Your task to perform on an android device: Open notification settings Image 0: 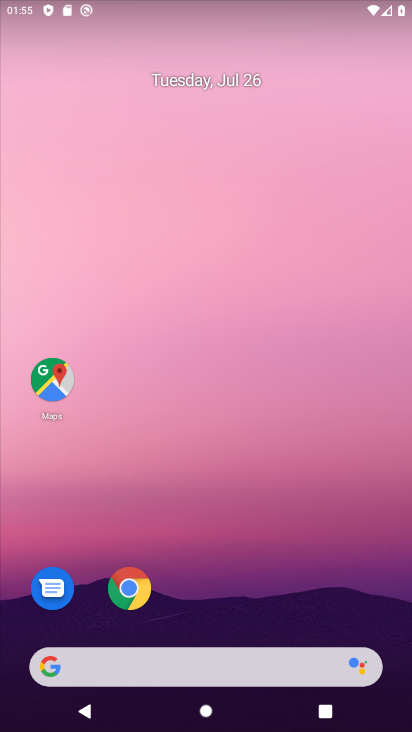
Step 0: drag from (286, 620) to (239, 234)
Your task to perform on an android device: Open notification settings Image 1: 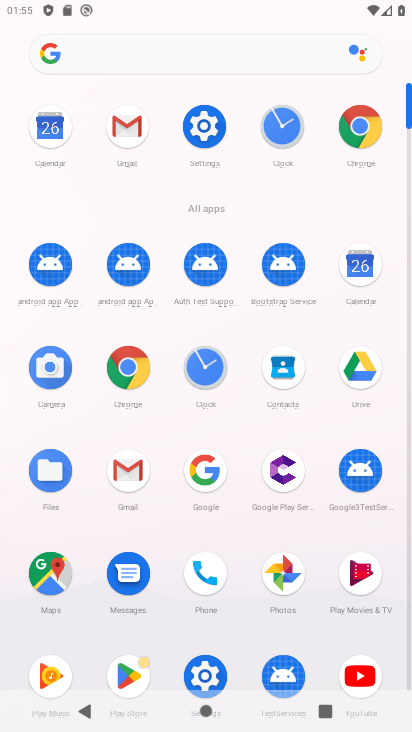
Step 1: click (208, 131)
Your task to perform on an android device: Open notification settings Image 2: 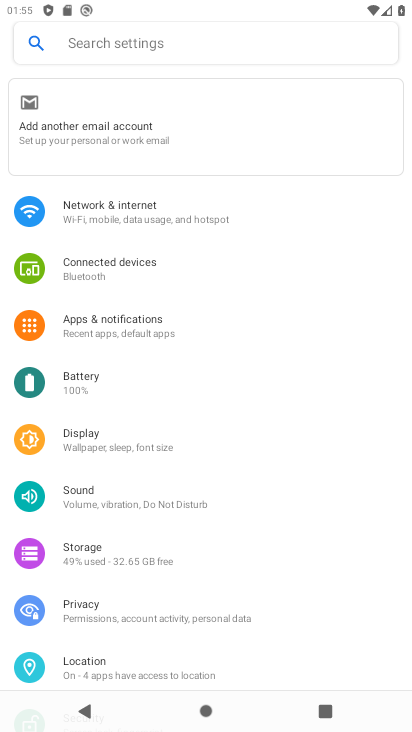
Step 2: click (159, 328)
Your task to perform on an android device: Open notification settings Image 3: 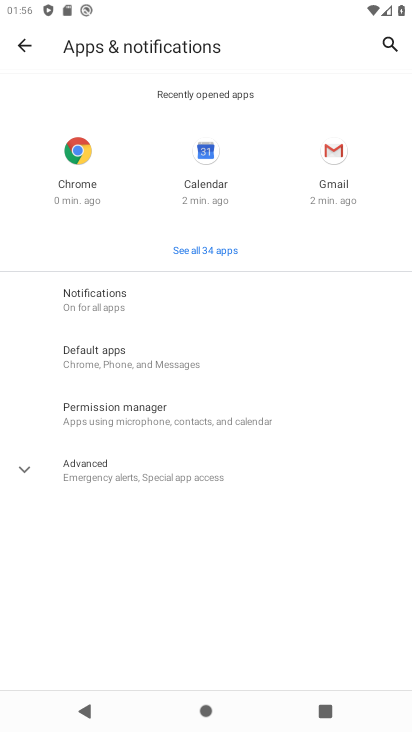
Step 3: click (186, 305)
Your task to perform on an android device: Open notification settings Image 4: 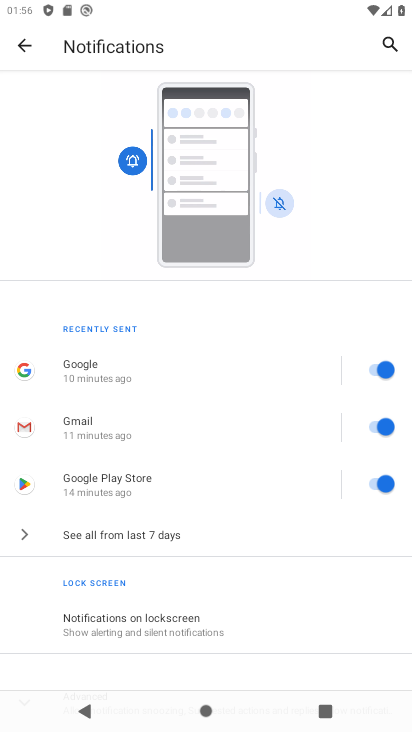
Step 4: task complete